Your task to perform on an android device: turn on bluetooth scan Image 0: 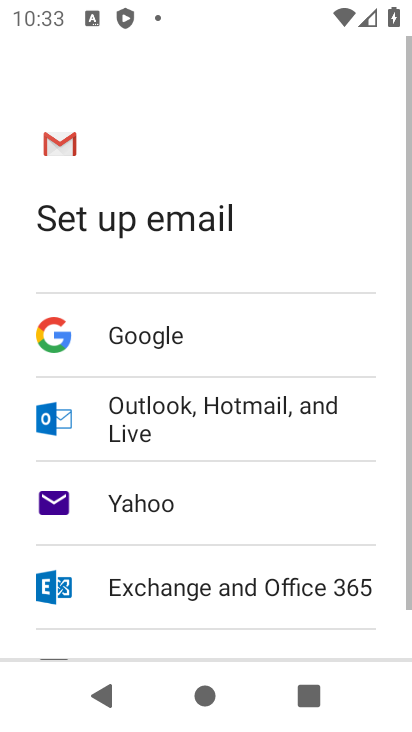
Step 0: press home button
Your task to perform on an android device: turn on bluetooth scan Image 1: 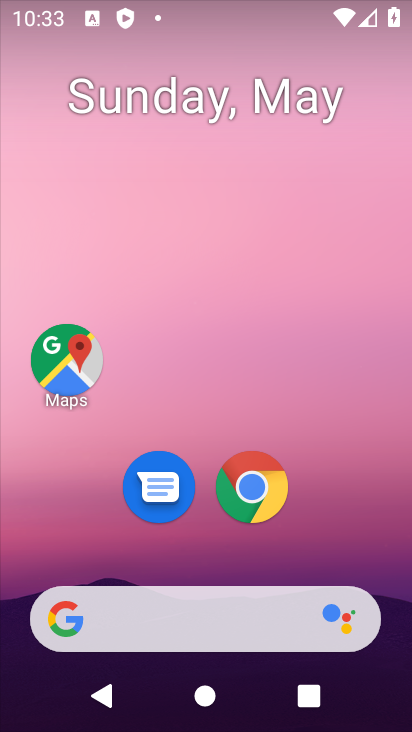
Step 1: drag from (190, 696) to (317, 150)
Your task to perform on an android device: turn on bluetooth scan Image 2: 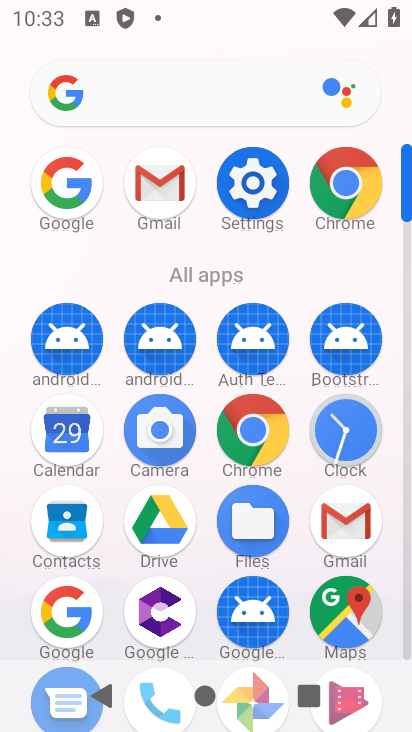
Step 2: click (271, 197)
Your task to perform on an android device: turn on bluetooth scan Image 3: 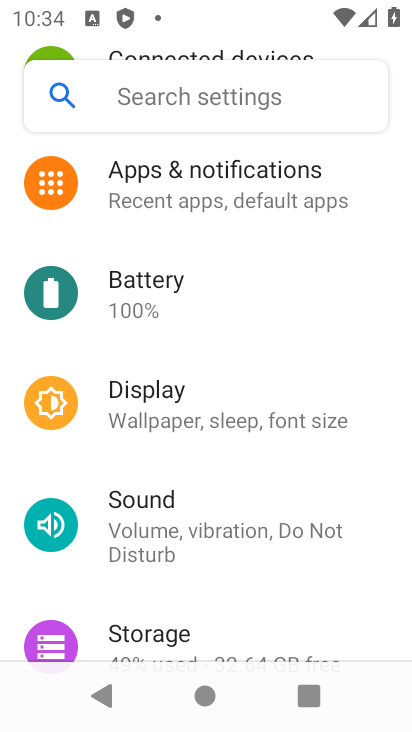
Step 3: drag from (281, 292) to (259, 446)
Your task to perform on an android device: turn on bluetooth scan Image 4: 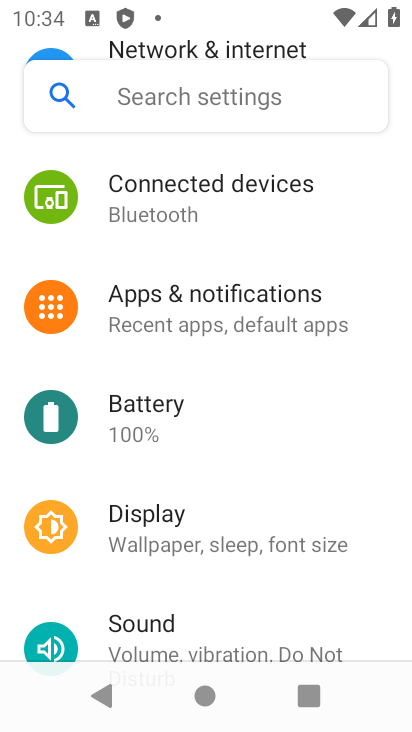
Step 4: drag from (242, 324) to (207, 462)
Your task to perform on an android device: turn on bluetooth scan Image 5: 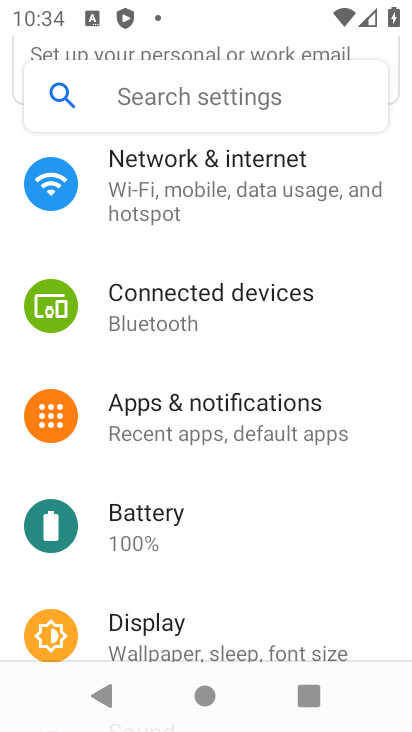
Step 5: click (181, 313)
Your task to perform on an android device: turn on bluetooth scan Image 6: 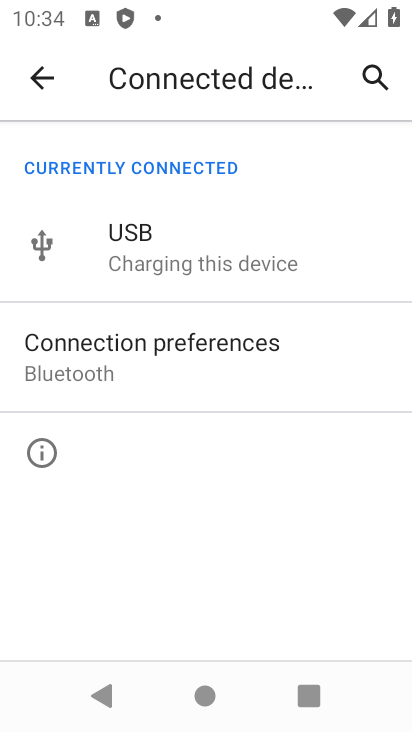
Step 6: click (199, 373)
Your task to perform on an android device: turn on bluetooth scan Image 7: 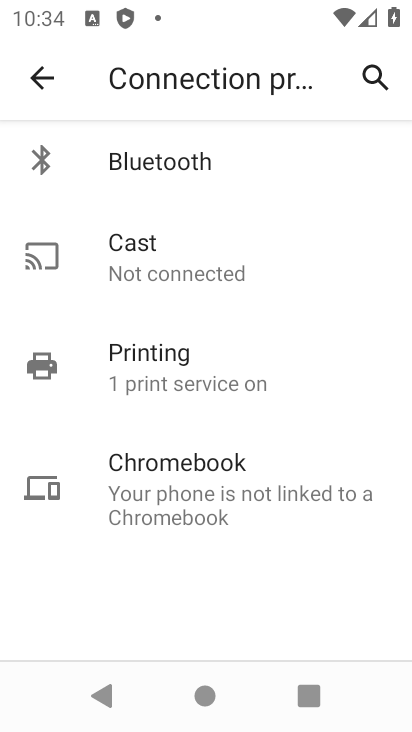
Step 7: click (188, 152)
Your task to perform on an android device: turn on bluetooth scan Image 8: 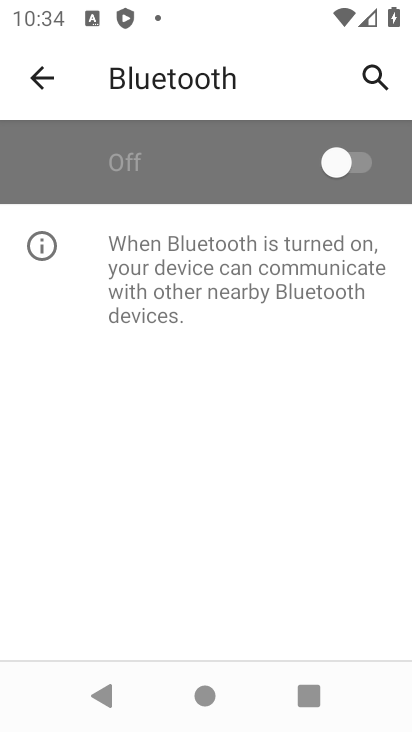
Step 8: click (350, 177)
Your task to perform on an android device: turn on bluetooth scan Image 9: 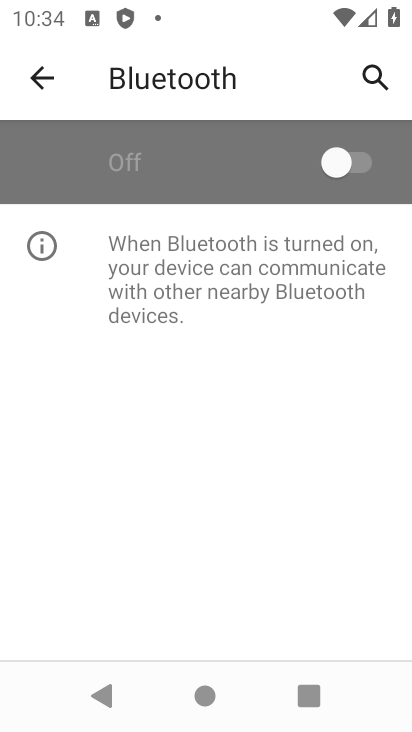
Step 9: click (350, 177)
Your task to perform on an android device: turn on bluetooth scan Image 10: 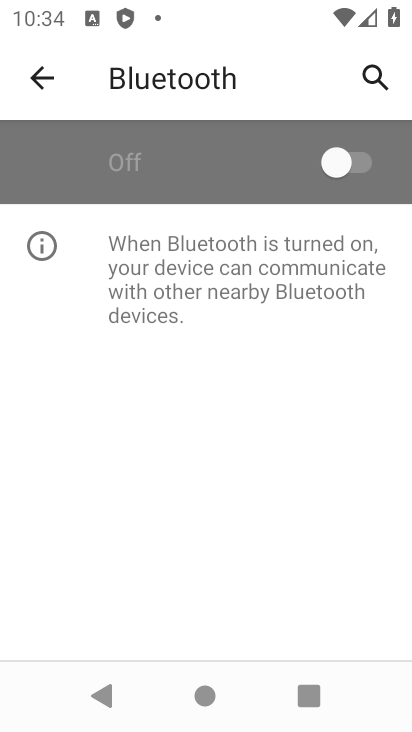
Step 10: click (350, 177)
Your task to perform on an android device: turn on bluetooth scan Image 11: 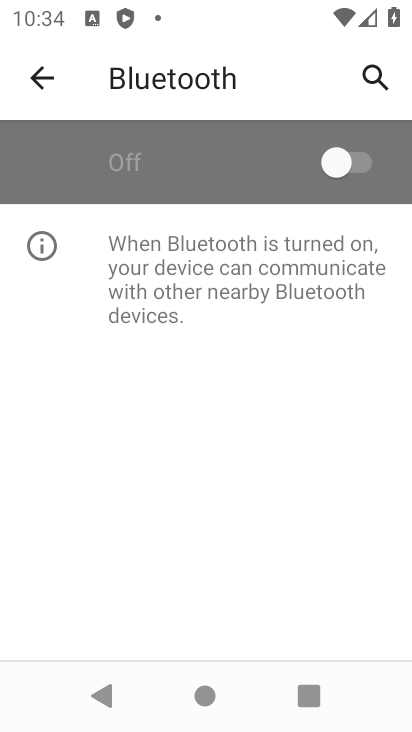
Step 11: task complete